Your task to perform on an android device: Go to display settings Image 0: 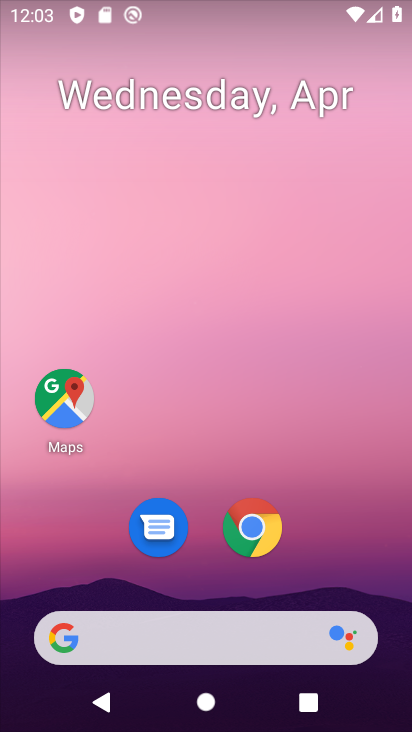
Step 0: drag from (348, 418) to (324, 0)
Your task to perform on an android device: Go to display settings Image 1: 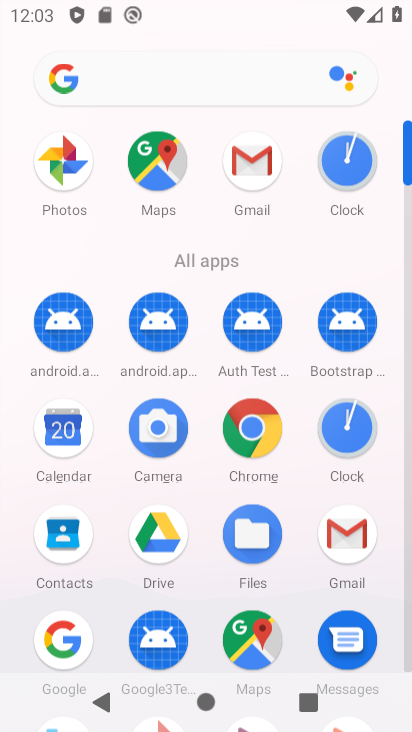
Step 1: drag from (396, 604) to (402, 367)
Your task to perform on an android device: Go to display settings Image 2: 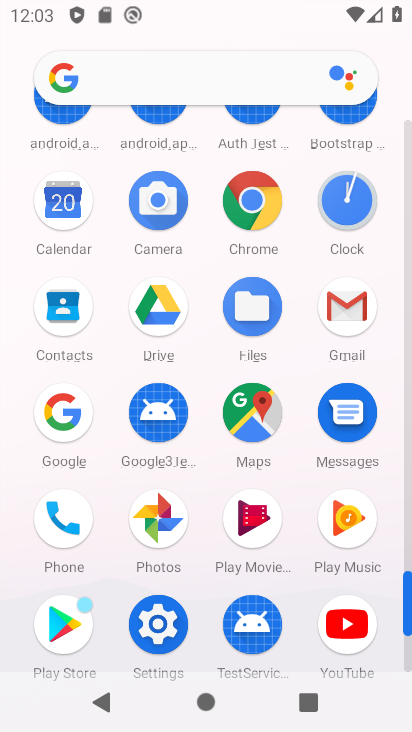
Step 2: click (152, 631)
Your task to perform on an android device: Go to display settings Image 3: 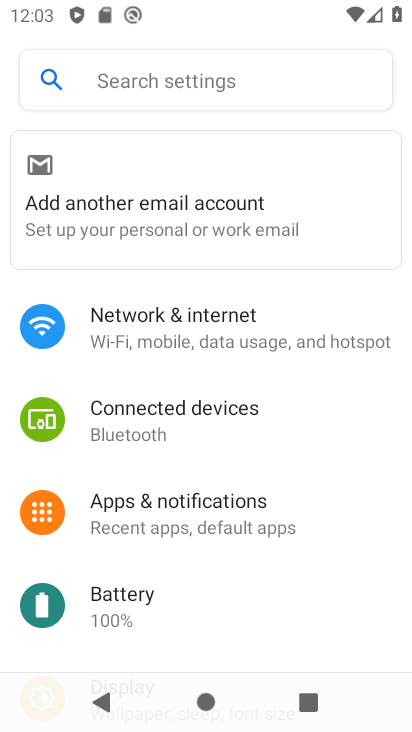
Step 3: drag from (227, 592) to (221, 341)
Your task to perform on an android device: Go to display settings Image 4: 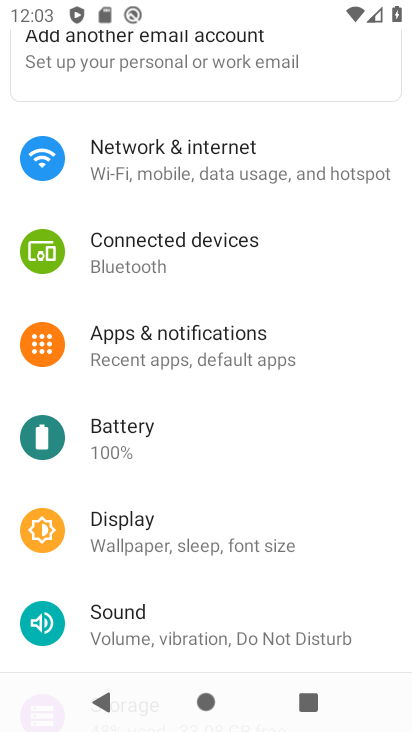
Step 4: click (126, 530)
Your task to perform on an android device: Go to display settings Image 5: 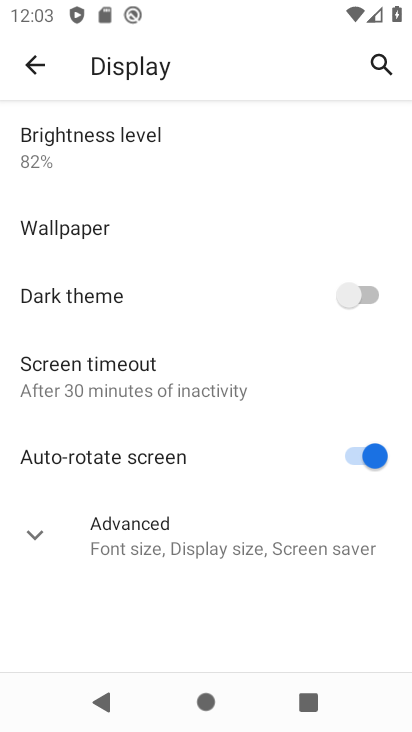
Step 5: click (26, 536)
Your task to perform on an android device: Go to display settings Image 6: 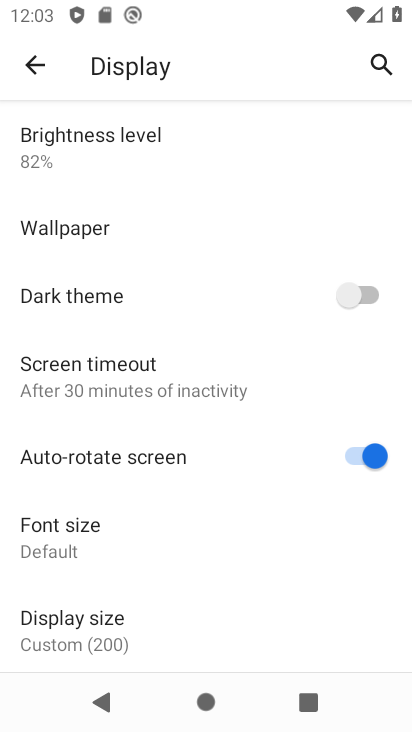
Step 6: task complete